Your task to perform on an android device: Open Google Chrome and open the bookmarks view Image 0: 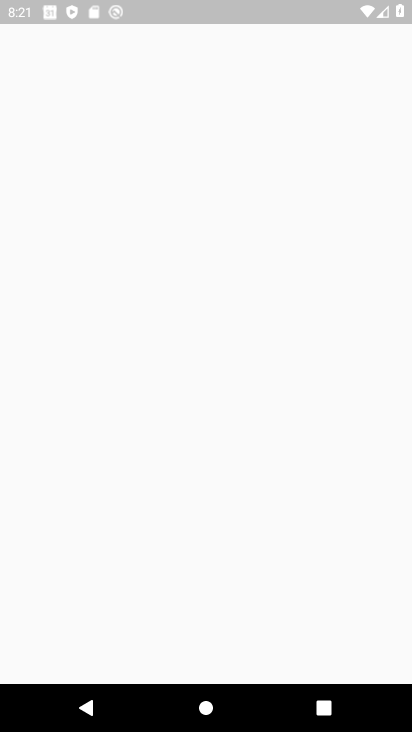
Step 0: drag from (249, 542) to (260, 61)
Your task to perform on an android device: Open Google Chrome and open the bookmarks view Image 1: 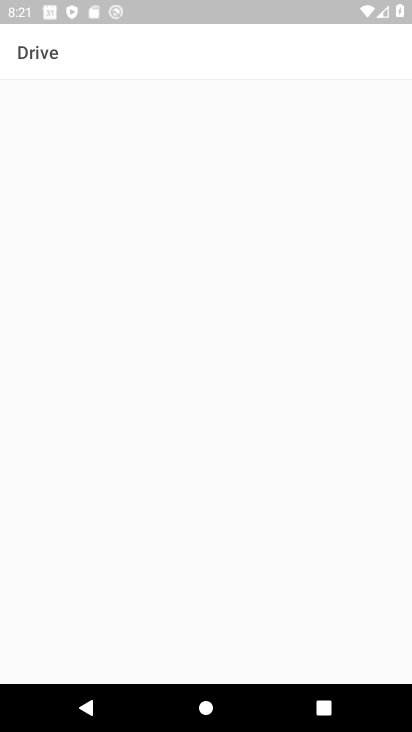
Step 1: press home button
Your task to perform on an android device: Open Google Chrome and open the bookmarks view Image 2: 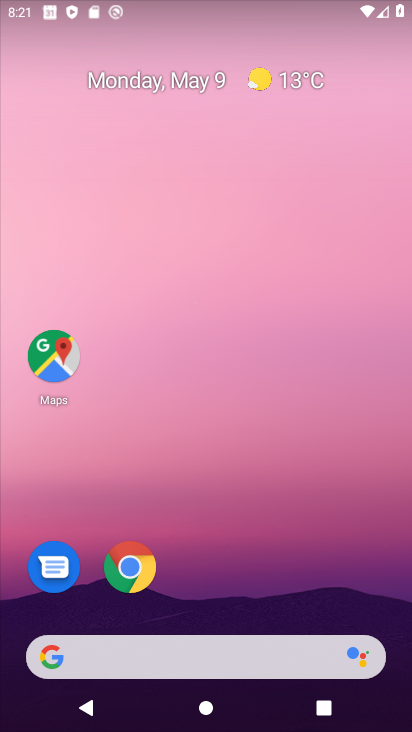
Step 2: click (127, 559)
Your task to perform on an android device: Open Google Chrome and open the bookmarks view Image 3: 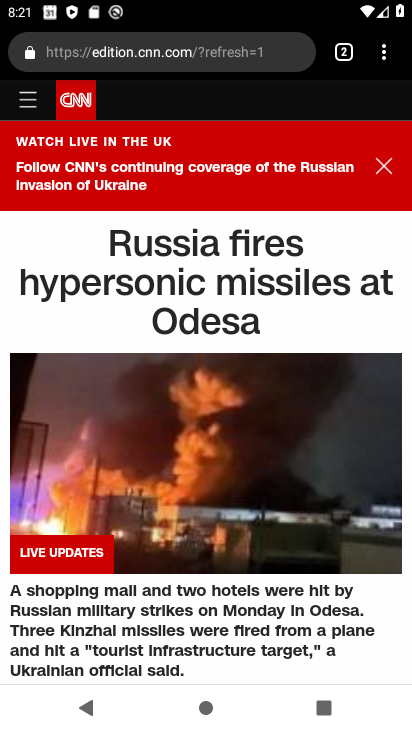
Step 3: task complete